Your task to perform on an android device: Open display settings Image 0: 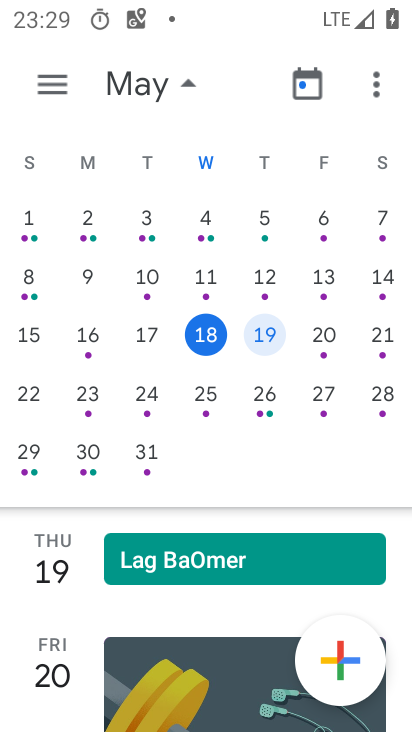
Step 0: press home button
Your task to perform on an android device: Open display settings Image 1: 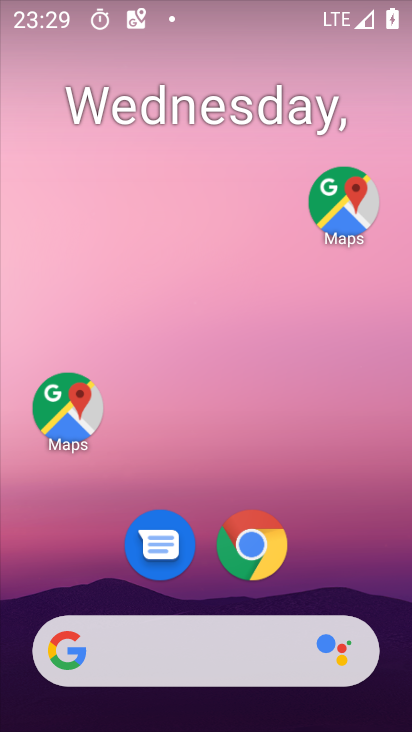
Step 1: drag from (338, 584) to (353, 169)
Your task to perform on an android device: Open display settings Image 2: 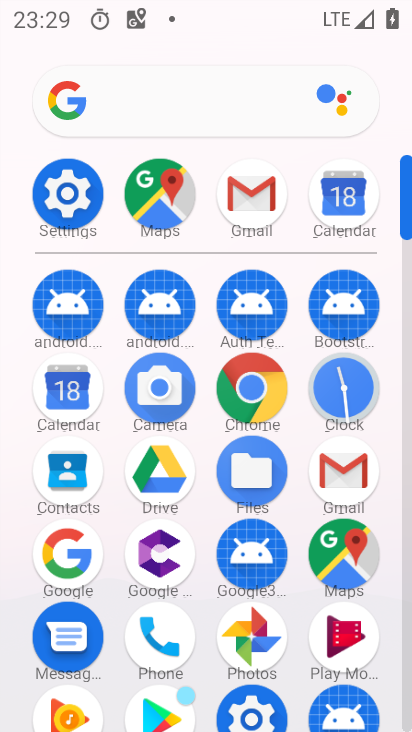
Step 2: click (79, 180)
Your task to perform on an android device: Open display settings Image 3: 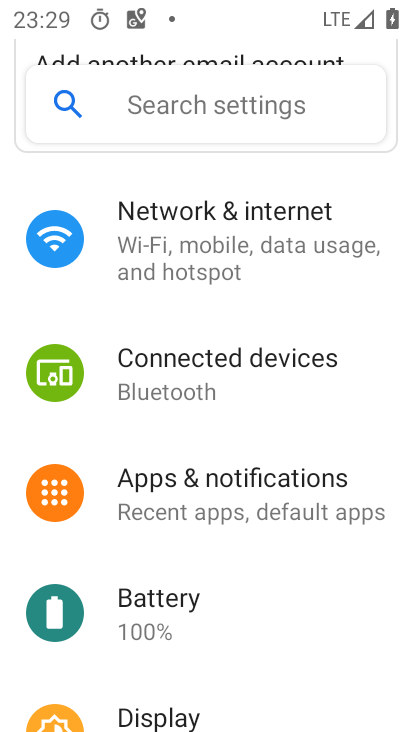
Step 3: drag from (233, 675) to (214, 412)
Your task to perform on an android device: Open display settings Image 4: 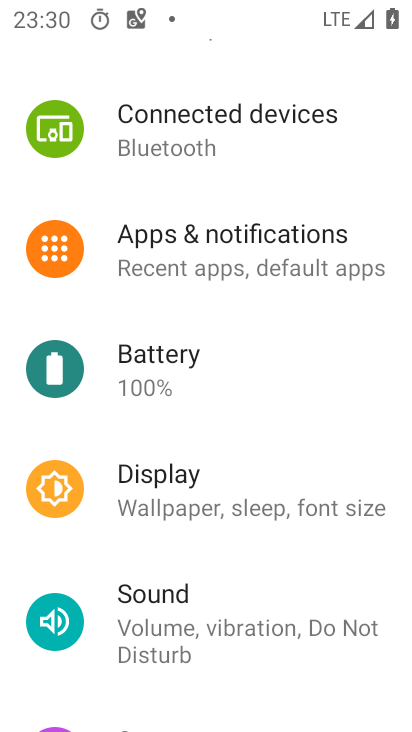
Step 4: click (210, 507)
Your task to perform on an android device: Open display settings Image 5: 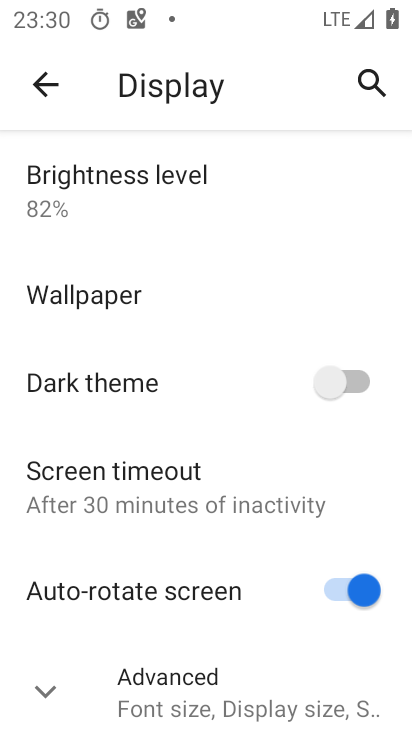
Step 5: task complete